Your task to perform on an android device: Open accessibility settings Image 0: 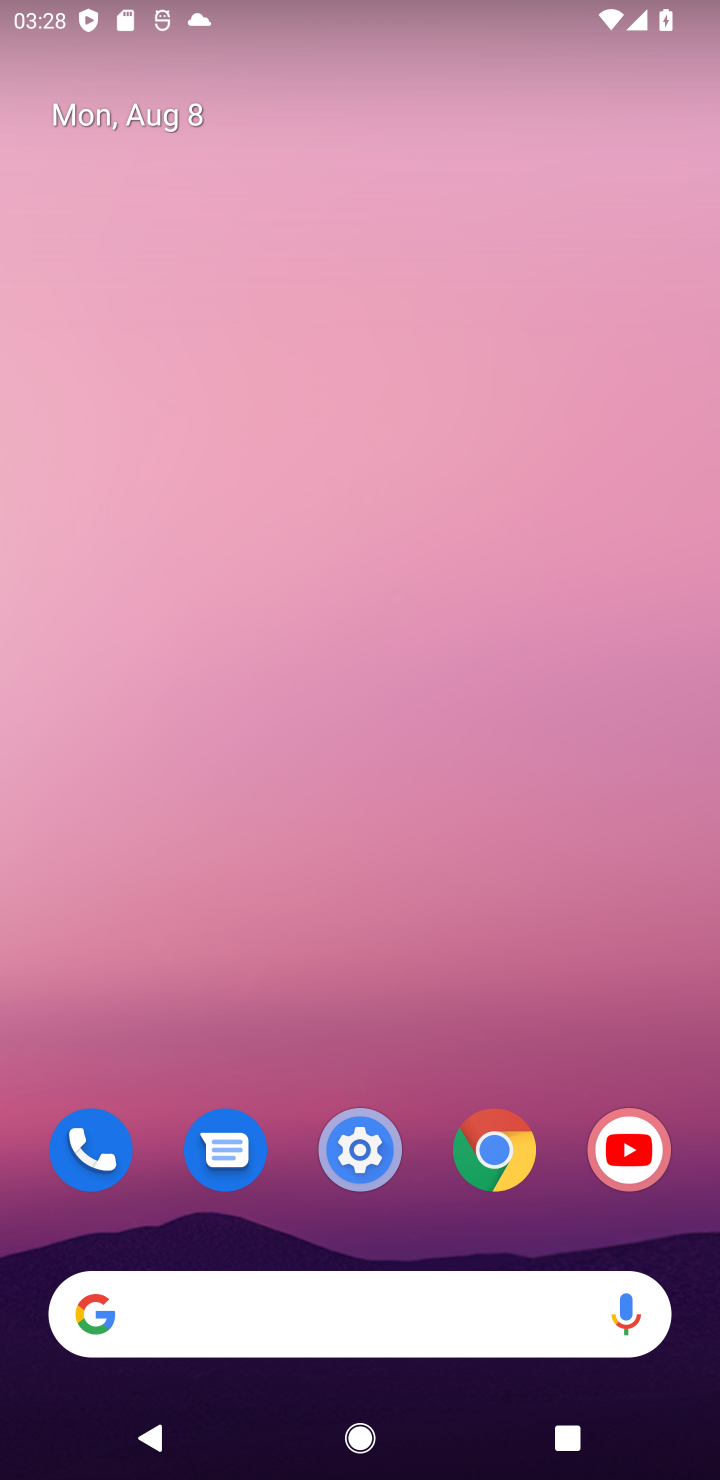
Step 0: click (337, 1166)
Your task to perform on an android device: Open accessibility settings Image 1: 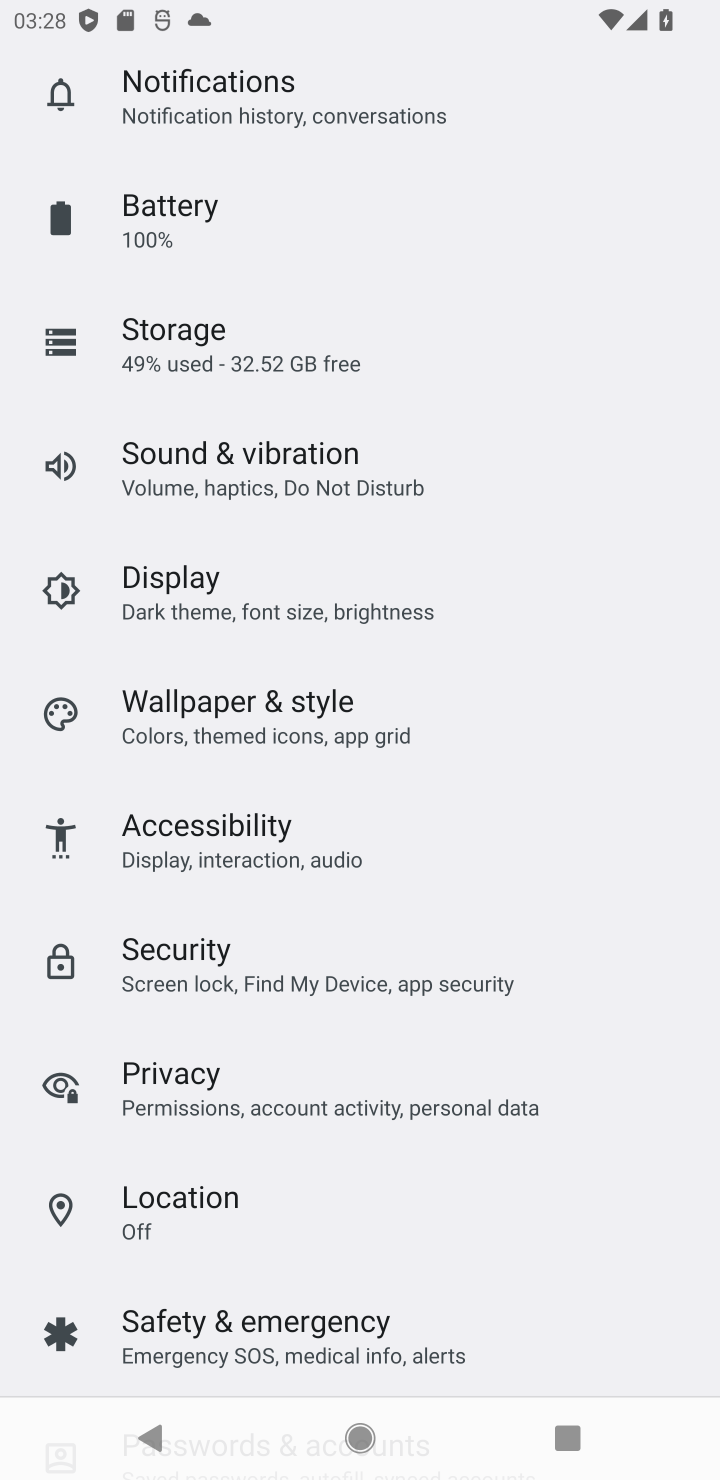
Step 1: click (241, 820)
Your task to perform on an android device: Open accessibility settings Image 2: 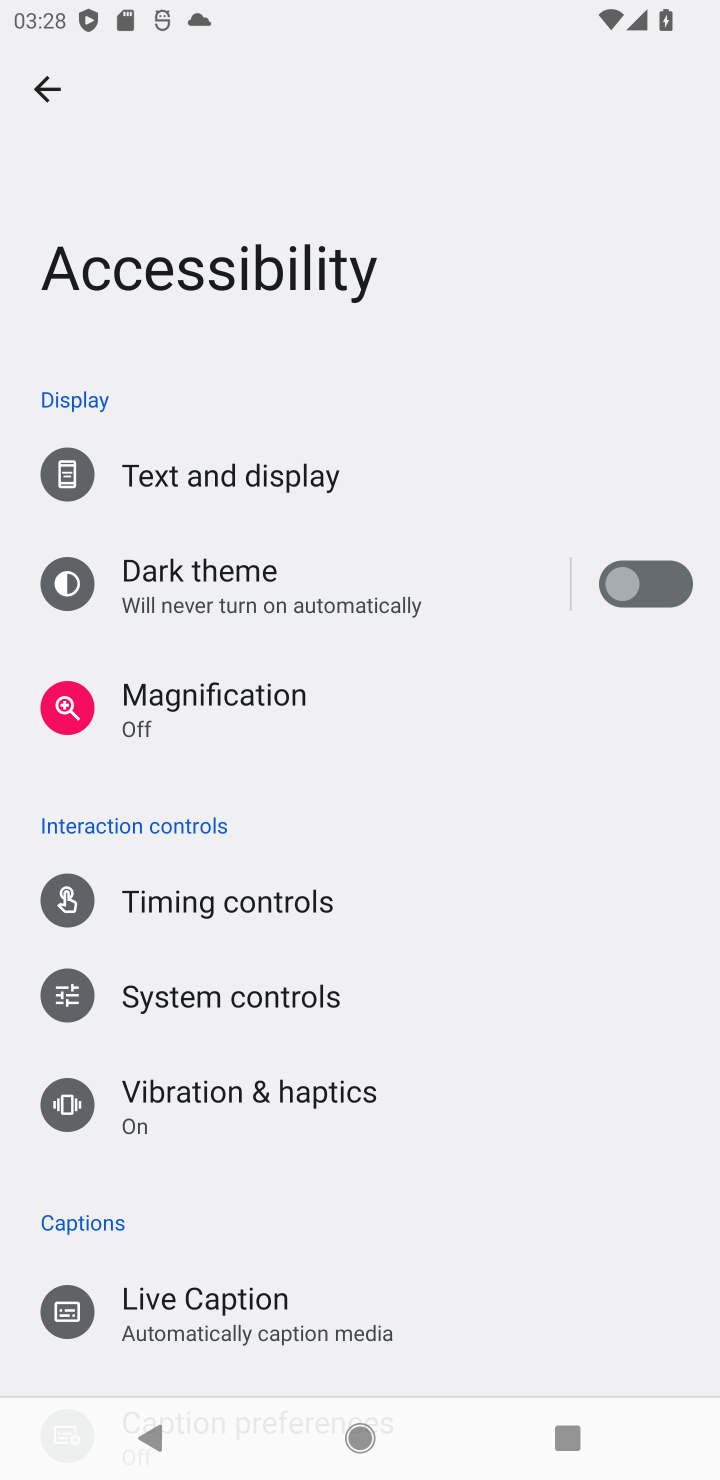
Step 2: task complete